Your task to perform on an android device: Toggle the flashlight Image 0: 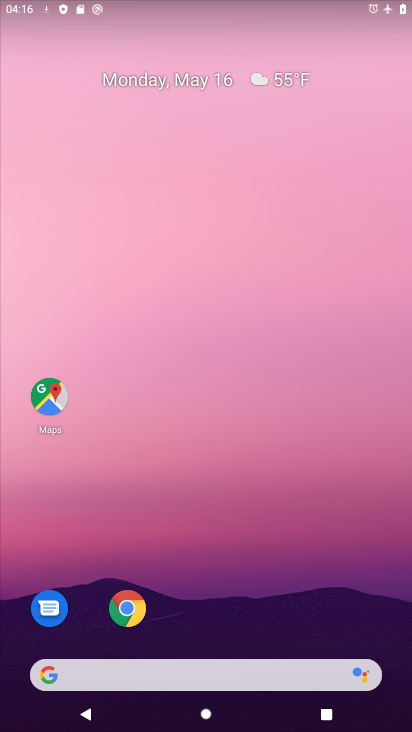
Step 0: drag from (249, 611) to (249, 232)
Your task to perform on an android device: Toggle the flashlight Image 1: 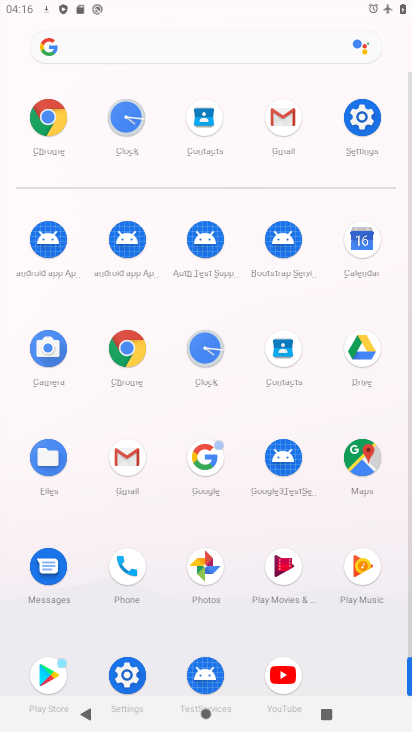
Step 1: click (353, 116)
Your task to perform on an android device: Toggle the flashlight Image 2: 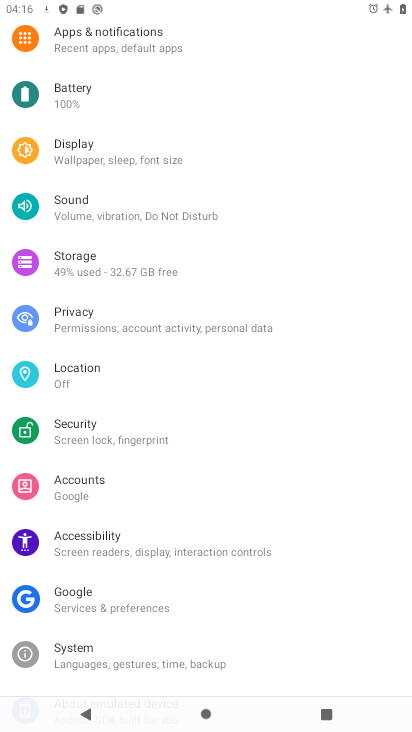
Step 2: drag from (183, 143) to (182, 458)
Your task to perform on an android device: Toggle the flashlight Image 3: 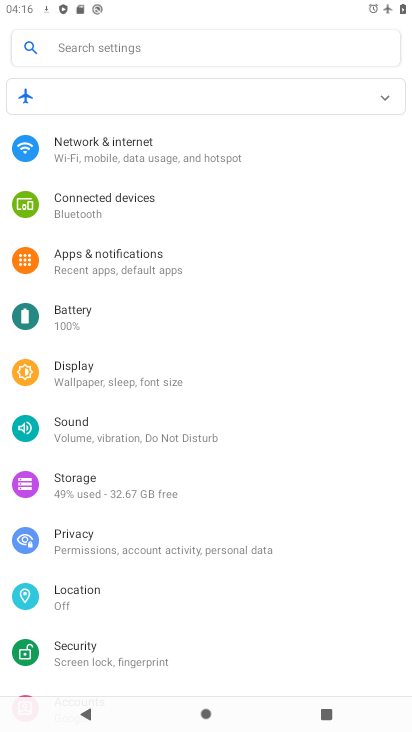
Step 3: click (136, 249)
Your task to perform on an android device: Toggle the flashlight Image 4: 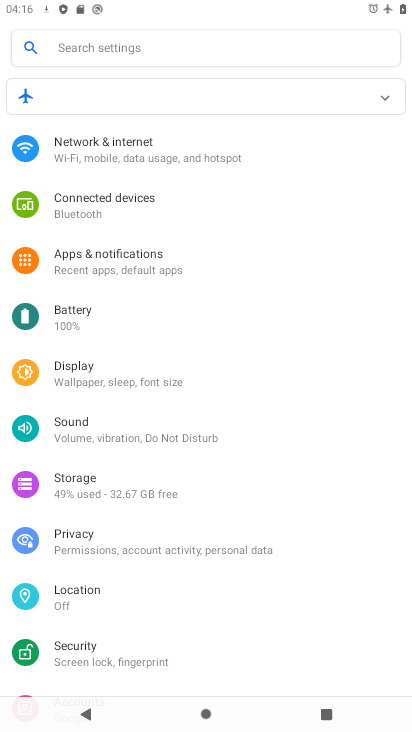
Step 4: task complete